Your task to perform on an android device: Open the calendar and show me this week's events? Image 0: 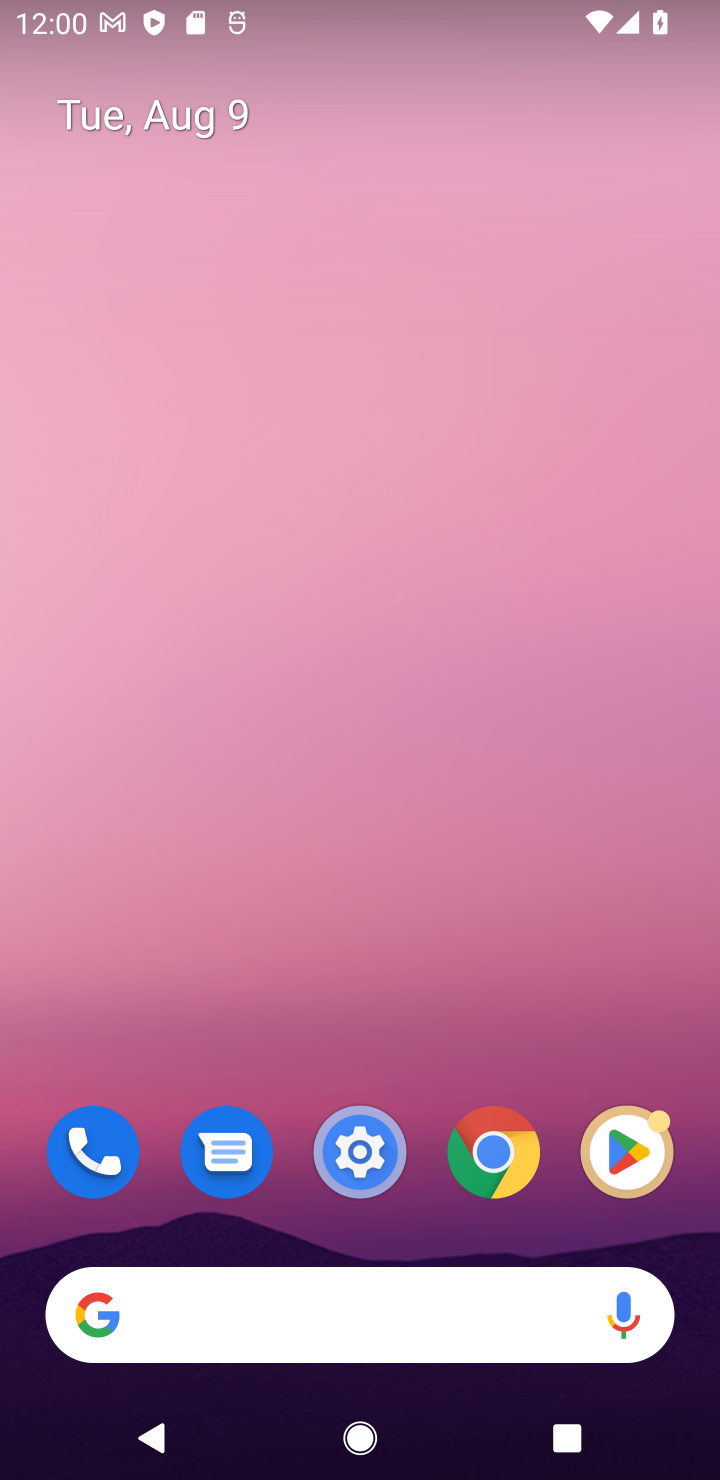
Step 0: drag from (503, 1030) to (394, 324)
Your task to perform on an android device: Open the calendar and show me this week's events? Image 1: 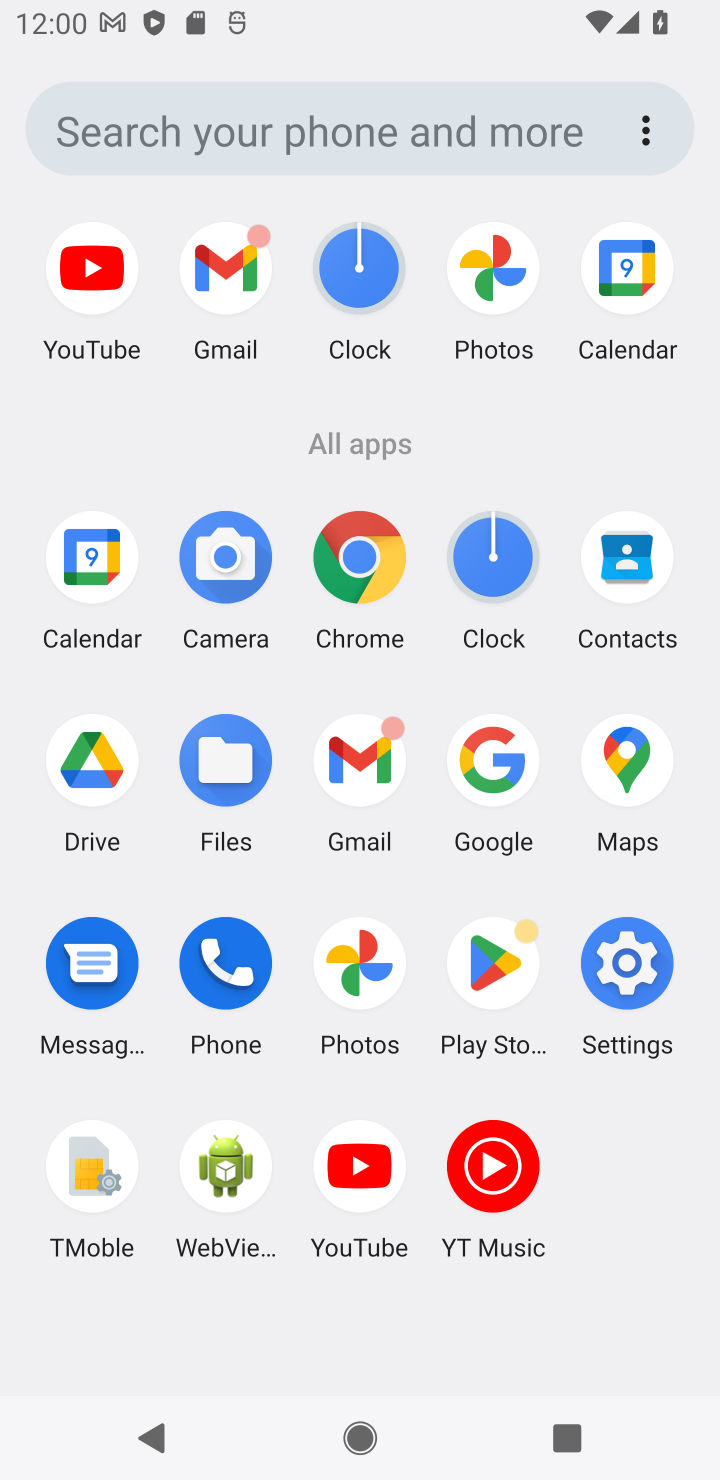
Step 1: click (80, 574)
Your task to perform on an android device: Open the calendar and show me this week's events? Image 2: 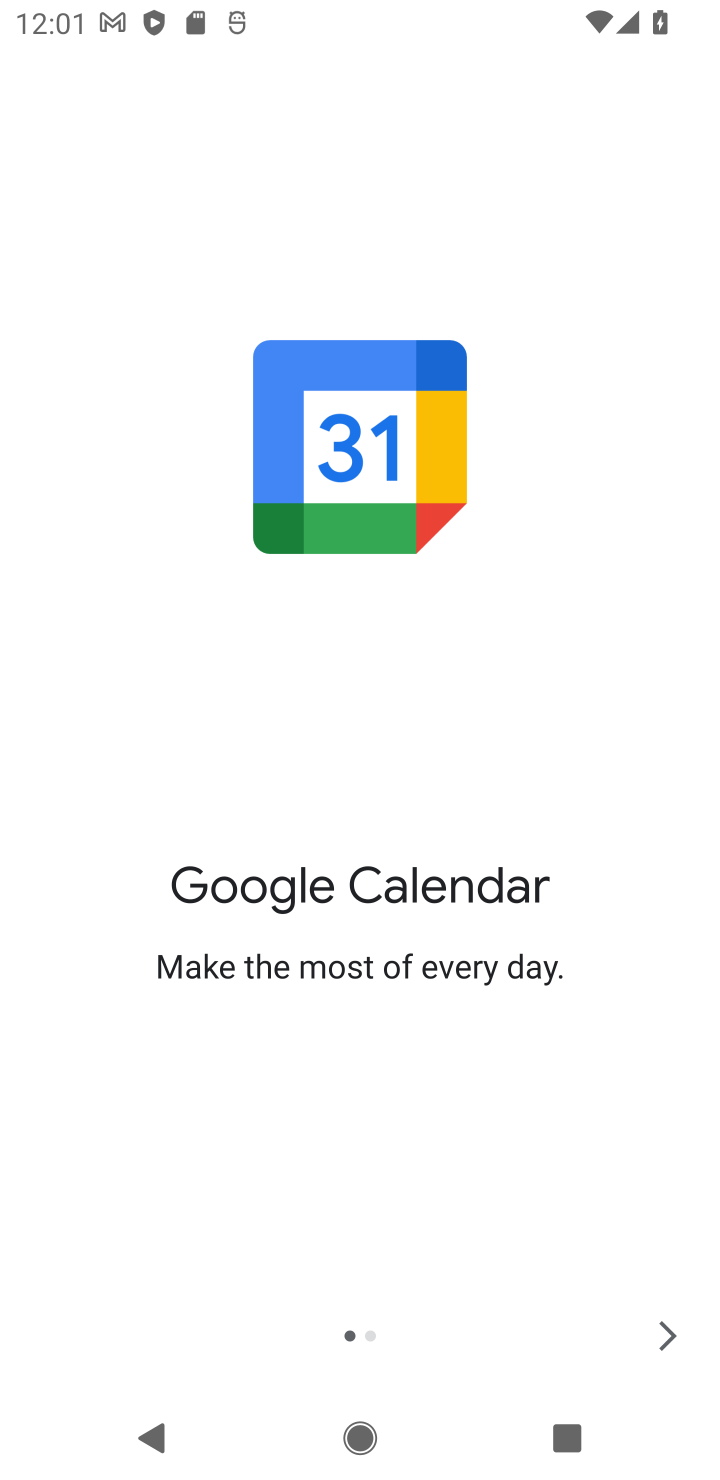
Step 2: click (666, 1335)
Your task to perform on an android device: Open the calendar and show me this week's events? Image 3: 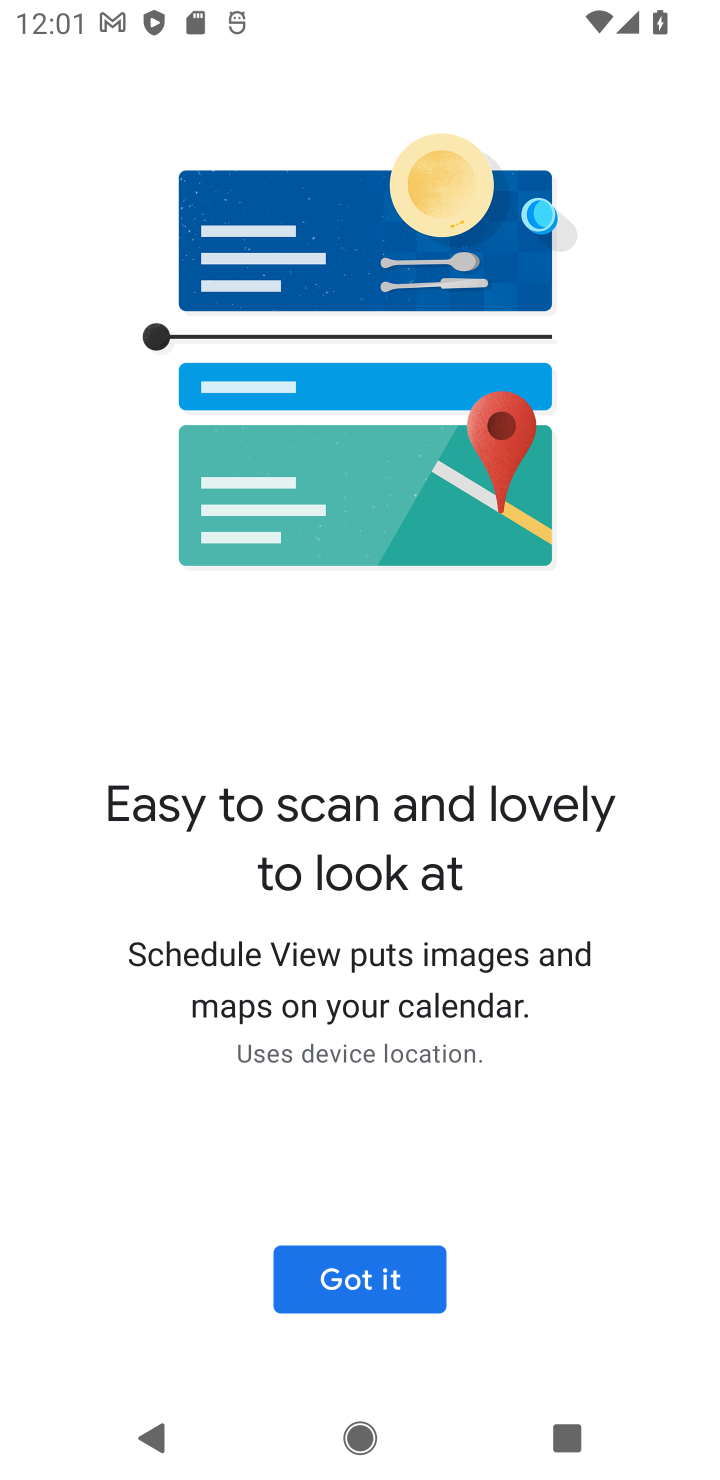
Step 3: click (365, 1283)
Your task to perform on an android device: Open the calendar and show me this week's events? Image 4: 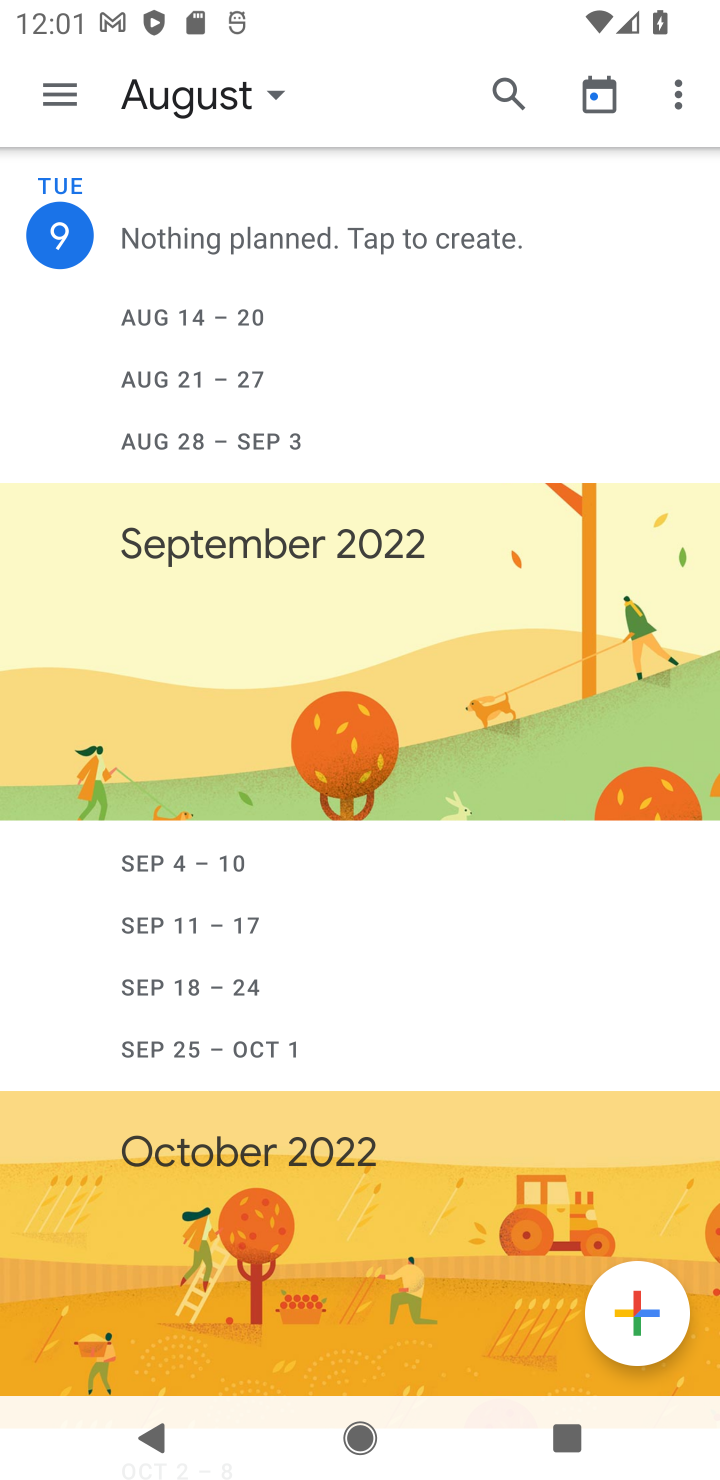
Step 4: click (53, 103)
Your task to perform on an android device: Open the calendar and show me this week's events? Image 5: 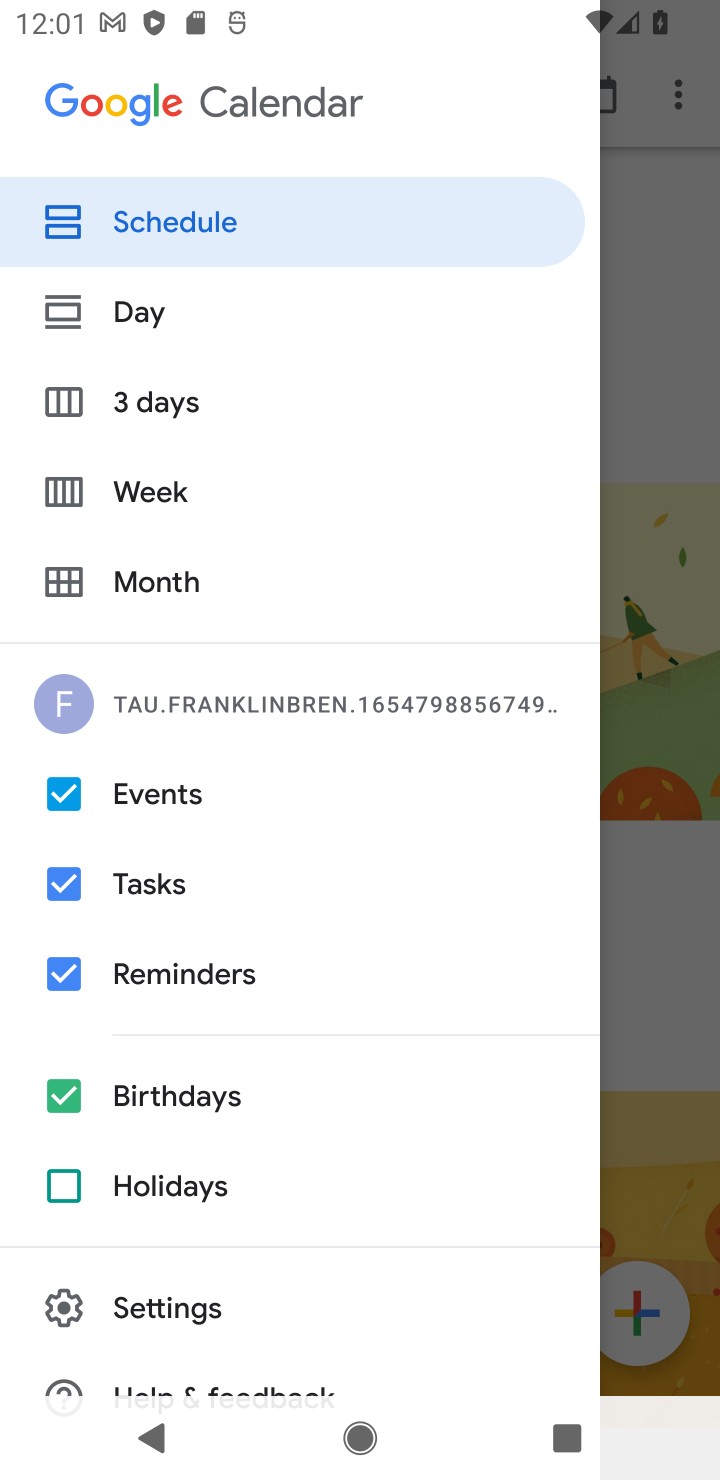
Step 5: click (153, 492)
Your task to perform on an android device: Open the calendar and show me this week's events? Image 6: 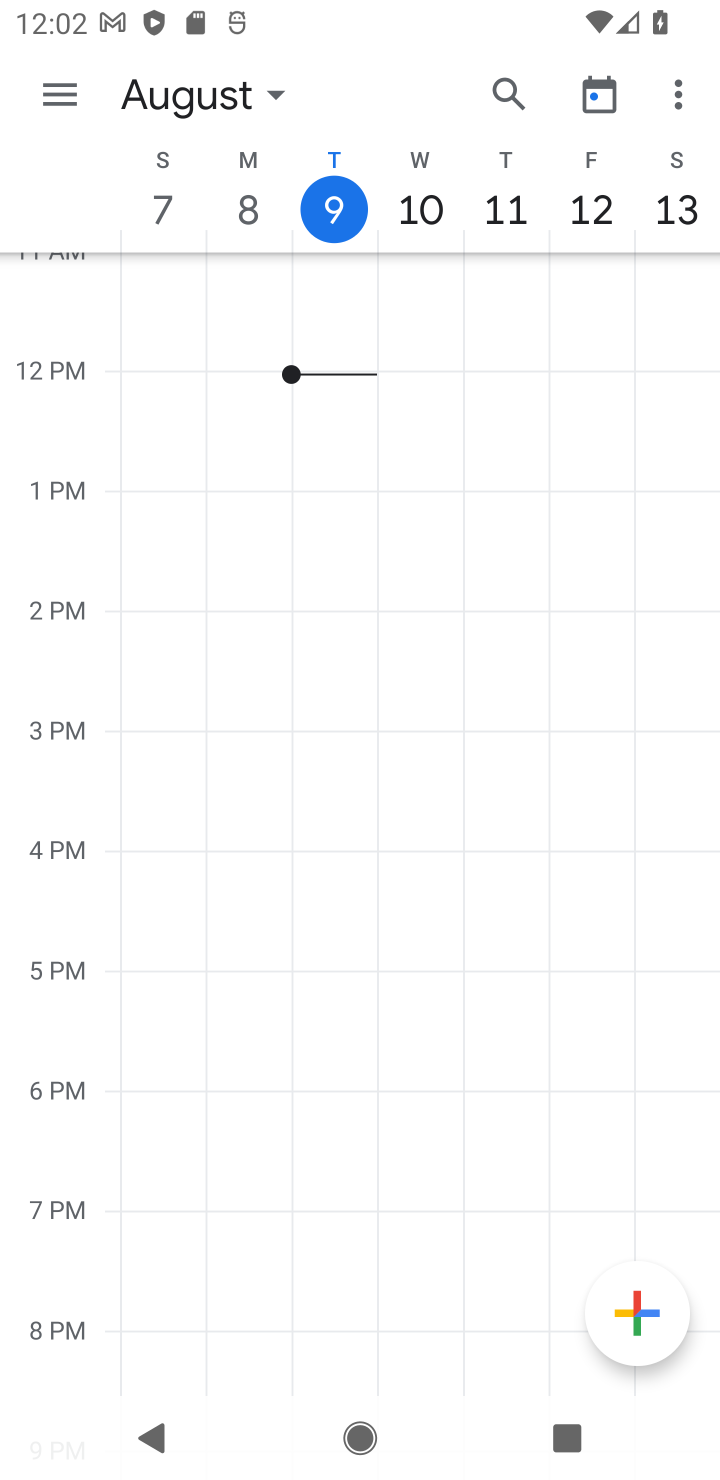
Step 6: task complete